Your task to perform on an android device: Open my contact list Image 0: 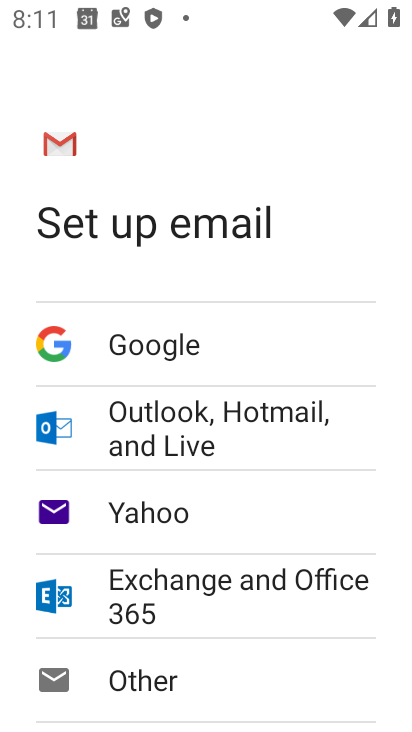
Step 0: press home button
Your task to perform on an android device: Open my contact list Image 1: 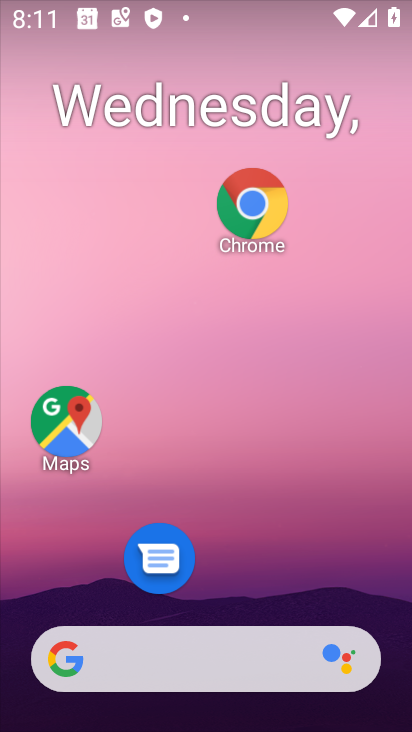
Step 1: drag from (224, 600) to (291, 55)
Your task to perform on an android device: Open my contact list Image 2: 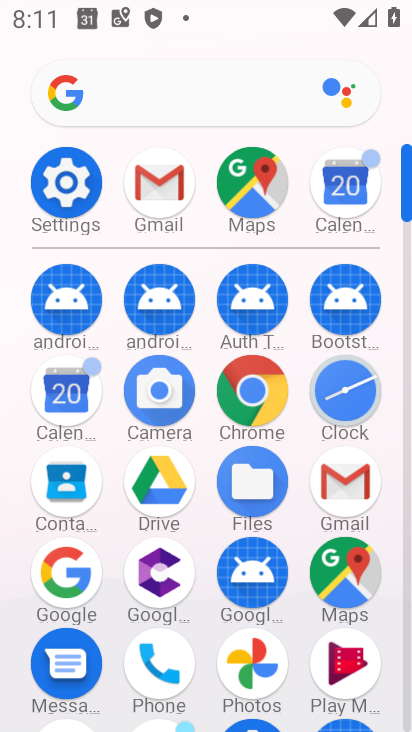
Step 2: click (64, 476)
Your task to perform on an android device: Open my contact list Image 3: 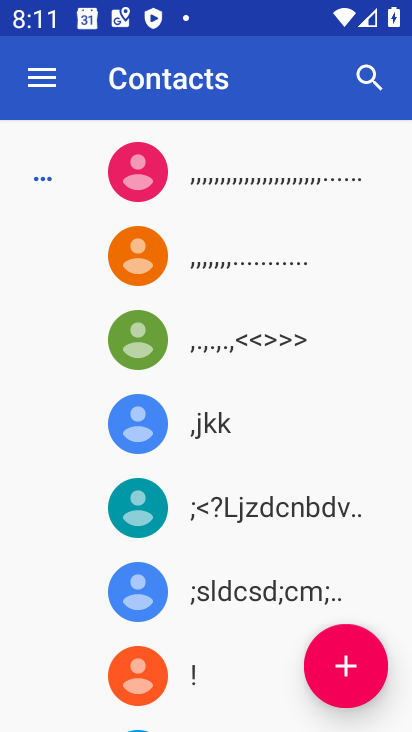
Step 3: task complete